Your task to perform on an android device: change the clock display to digital Image 0: 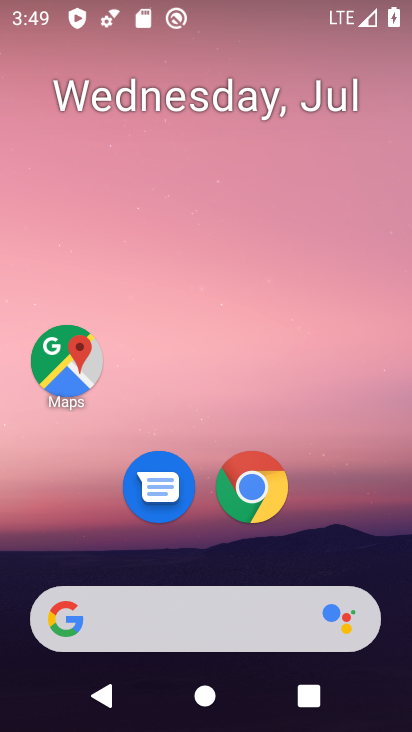
Step 0: drag from (207, 648) to (207, 129)
Your task to perform on an android device: change the clock display to digital Image 1: 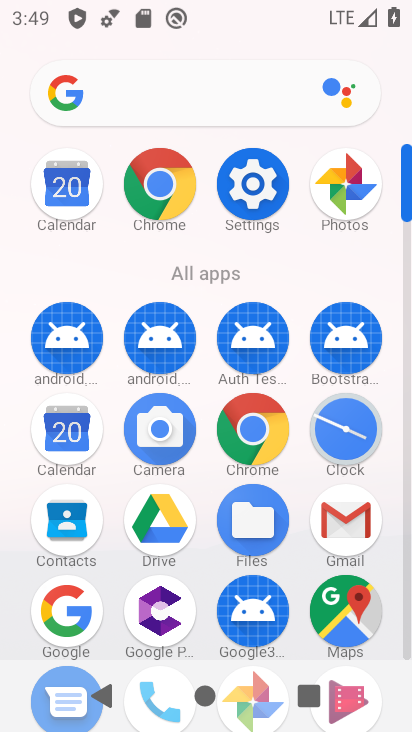
Step 1: click (368, 446)
Your task to perform on an android device: change the clock display to digital Image 2: 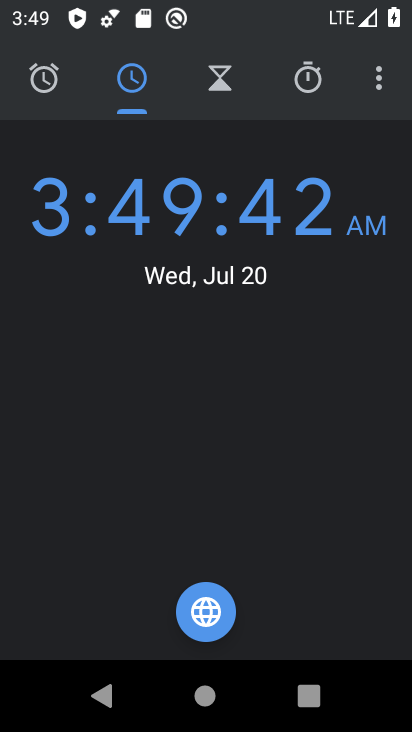
Step 2: click (384, 87)
Your task to perform on an android device: change the clock display to digital Image 3: 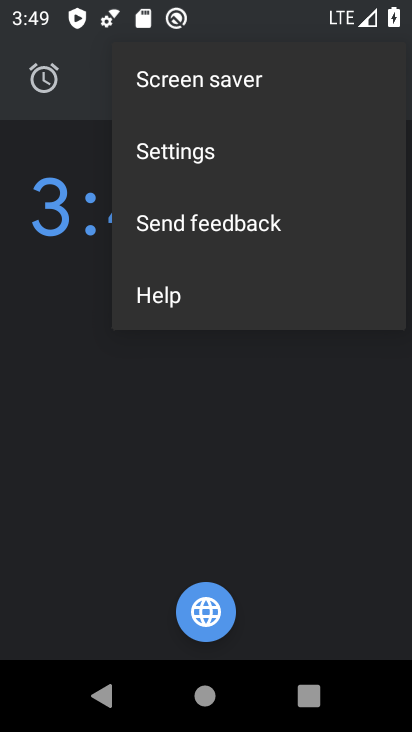
Step 3: click (209, 149)
Your task to perform on an android device: change the clock display to digital Image 4: 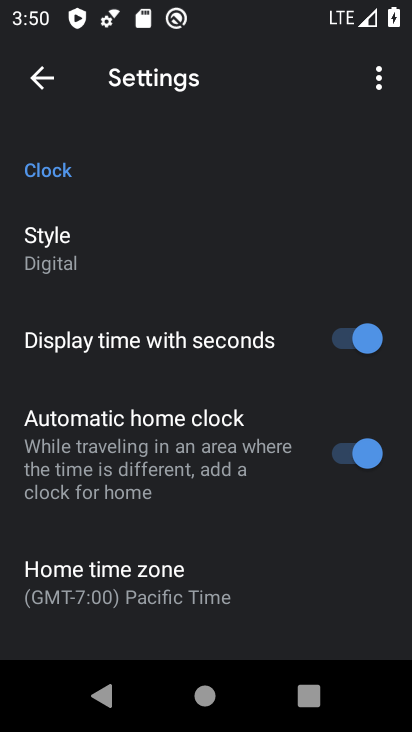
Step 4: task complete